Your task to perform on an android device: What's the weather? Image 0: 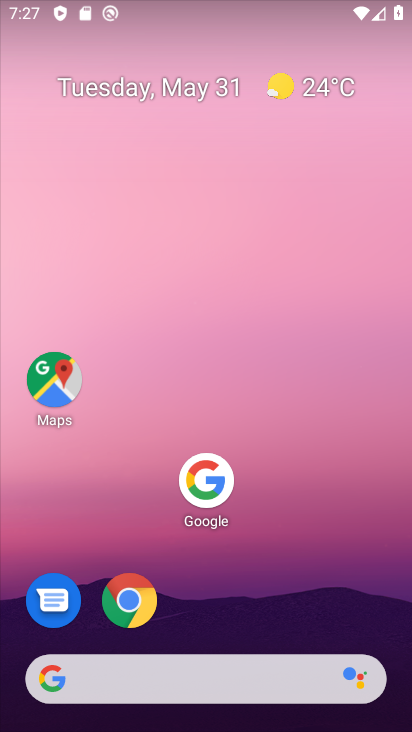
Step 0: click (308, 87)
Your task to perform on an android device: What's the weather? Image 1: 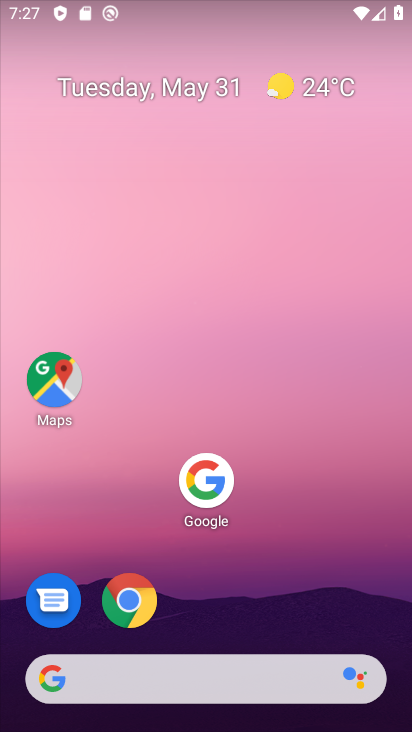
Step 1: click (290, 92)
Your task to perform on an android device: What's the weather? Image 2: 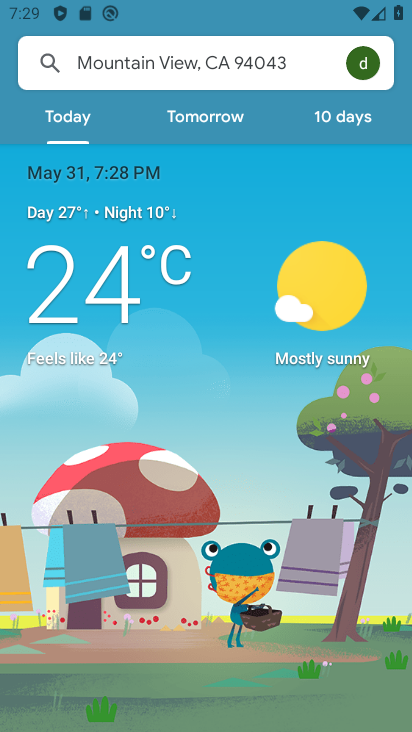
Step 2: task complete